Your task to perform on an android device: Search for the ikea sjalv lamp Image 0: 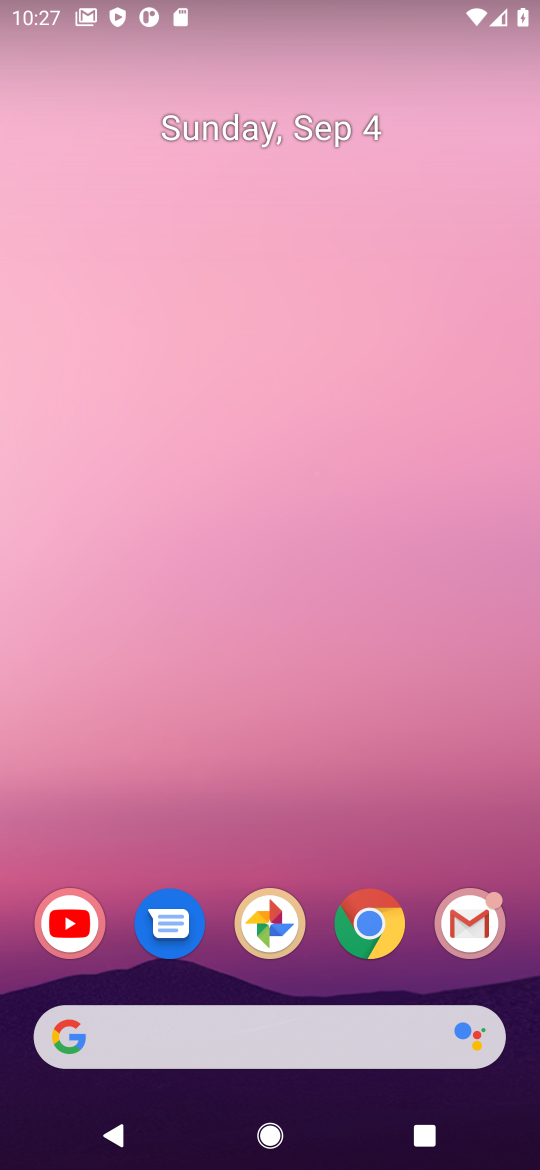
Step 0: click (247, 928)
Your task to perform on an android device: Search for the ikea sjalv lamp Image 1: 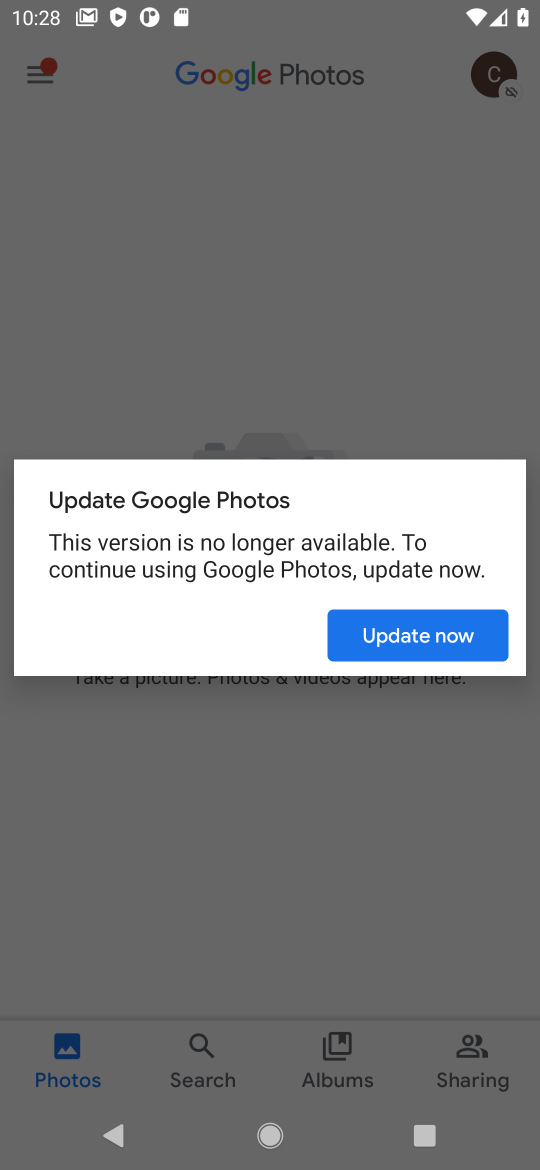
Step 1: press back button
Your task to perform on an android device: Search for the ikea sjalv lamp Image 2: 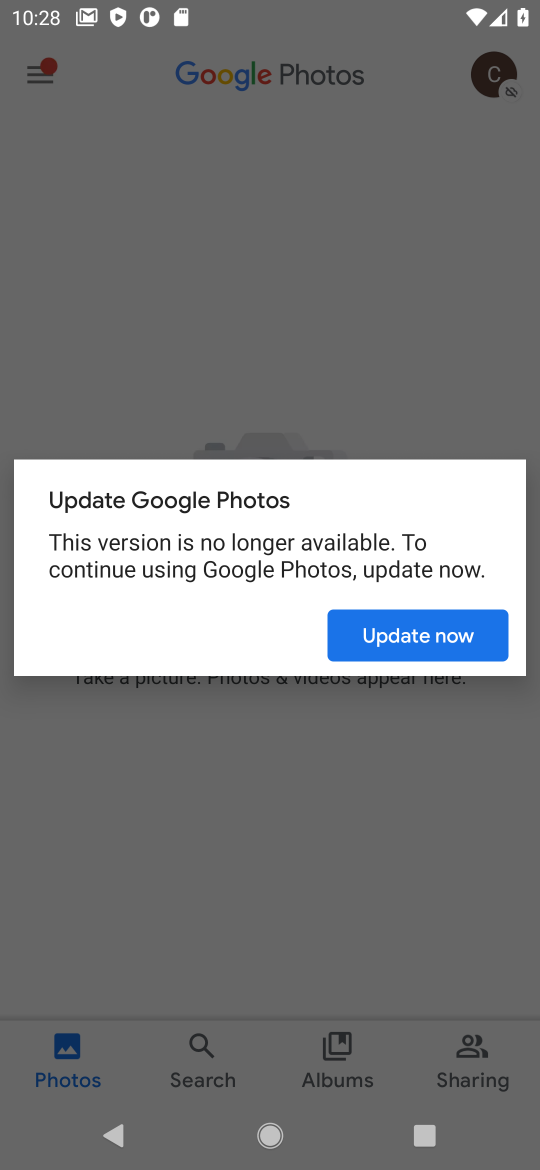
Step 2: press home button
Your task to perform on an android device: Search for the ikea sjalv lamp Image 3: 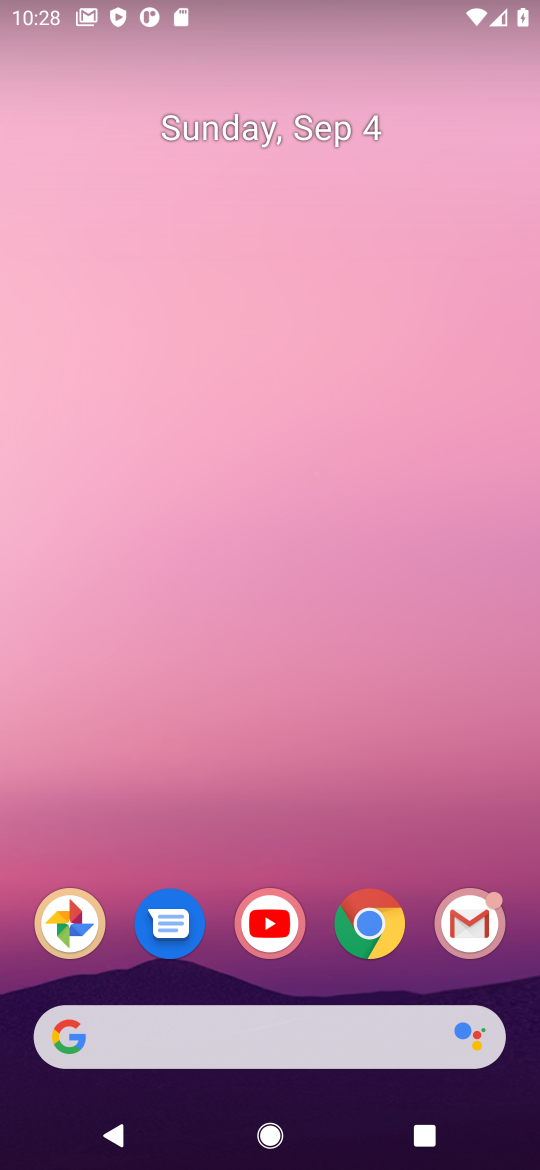
Step 3: click (381, 901)
Your task to perform on an android device: Search for the ikea sjalv lamp Image 4: 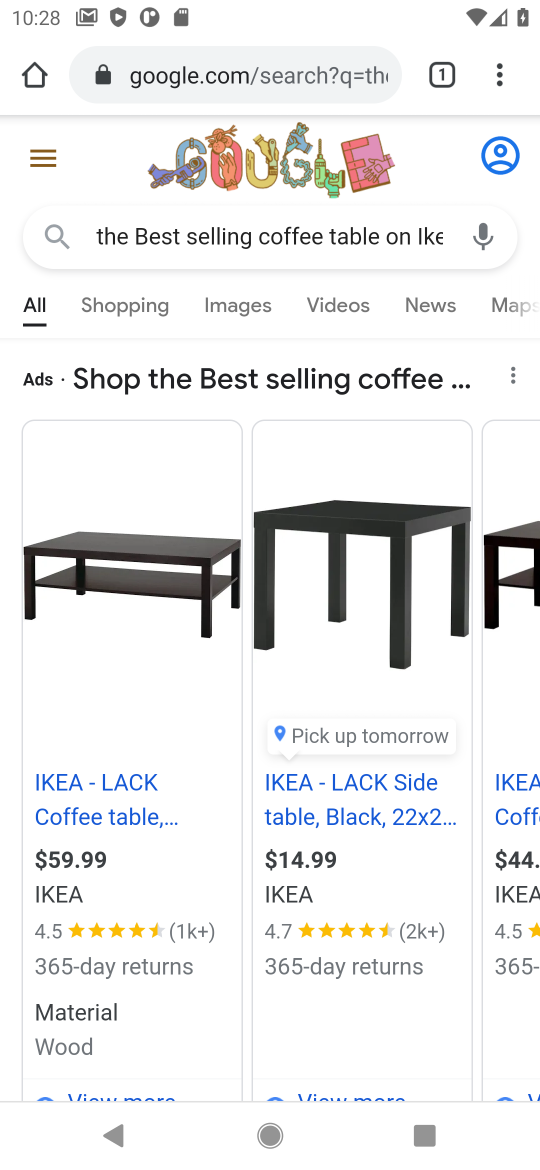
Step 4: click (219, 66)
Your task to perform on an android device: Search for the ikea sjalv lamp Image 5: 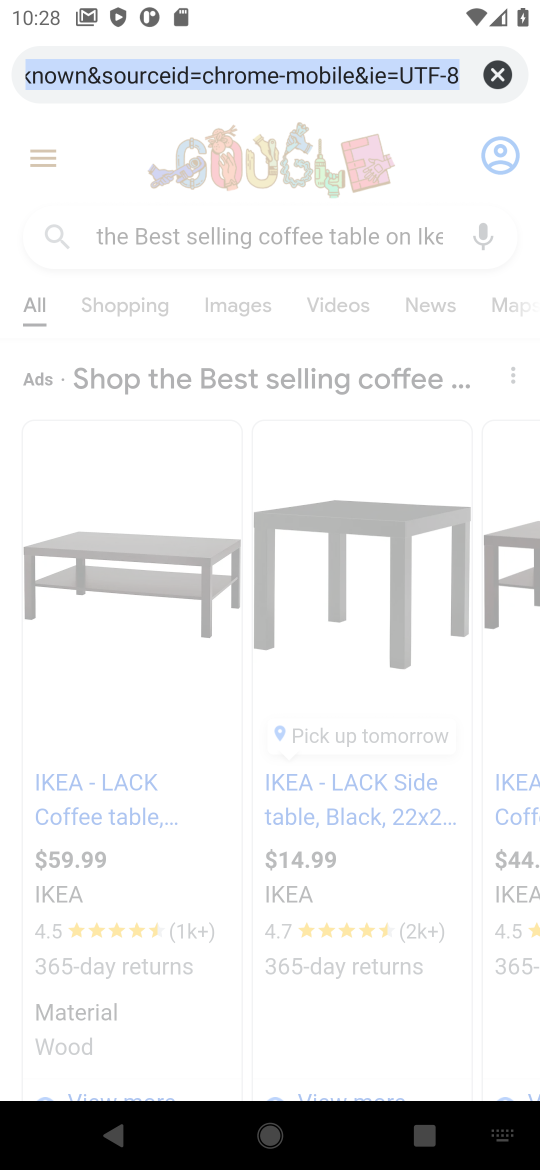
Step 5: click (498, 70)
Your task to perform on an android device: Search for the ikea sjalv lamp Image 6: 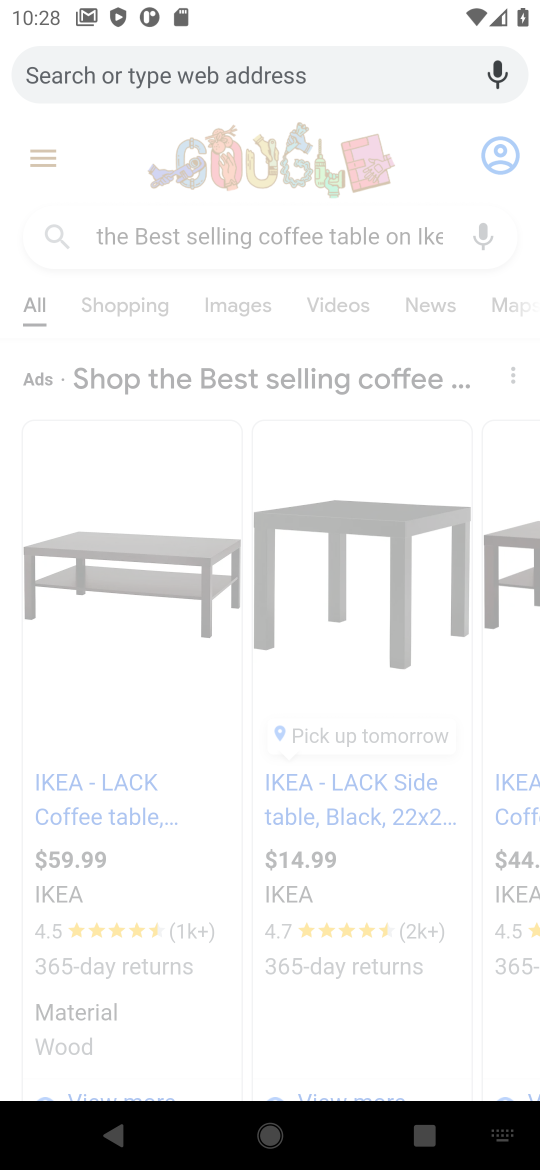
Step 6: type "the ikea sjalv lamp"
Your task to perform on an android device: Search for the ikea sjalv lamp Image 7: 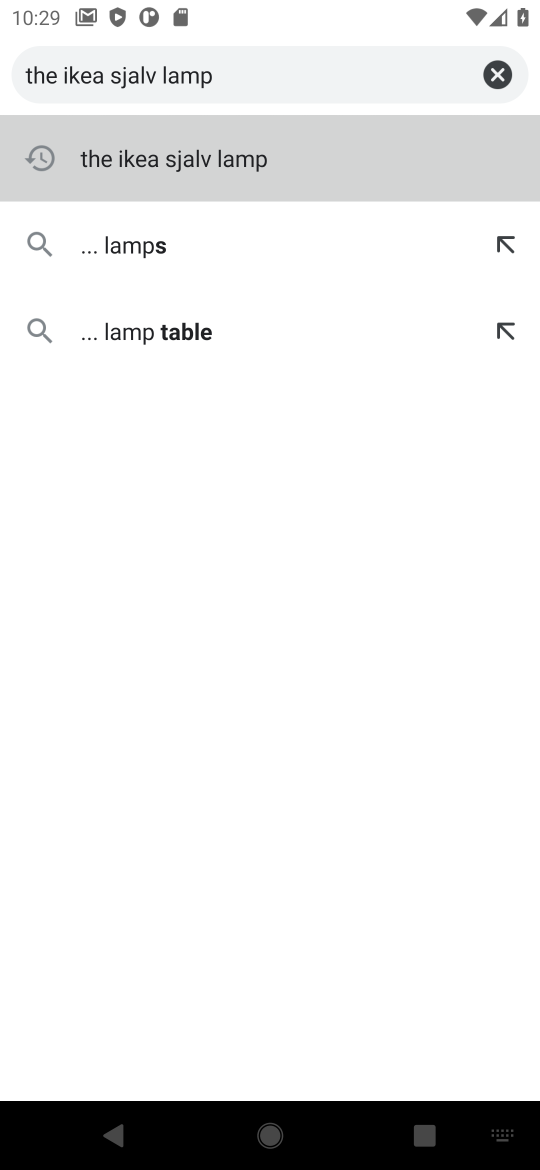
Step 7: click (177, 157)
Your task to perform on an android device: Search for the ikea sjalv lamp Image 8: 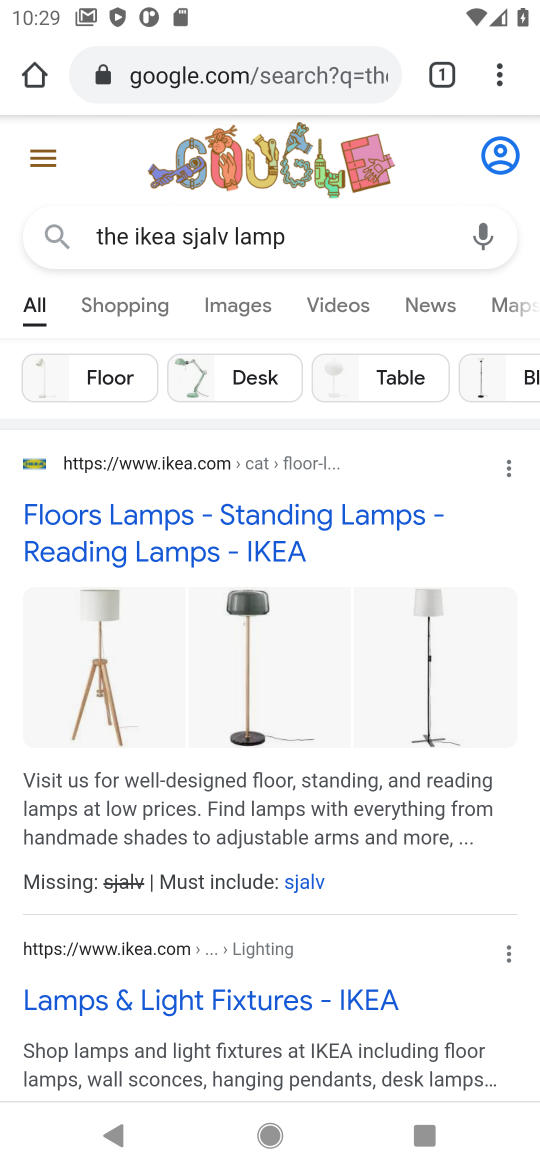
Step 8: task complete